Your task to perform on an android device: Search for "alienware aurora" on ebay, select the first entry, and add it to the cart. Image 0: 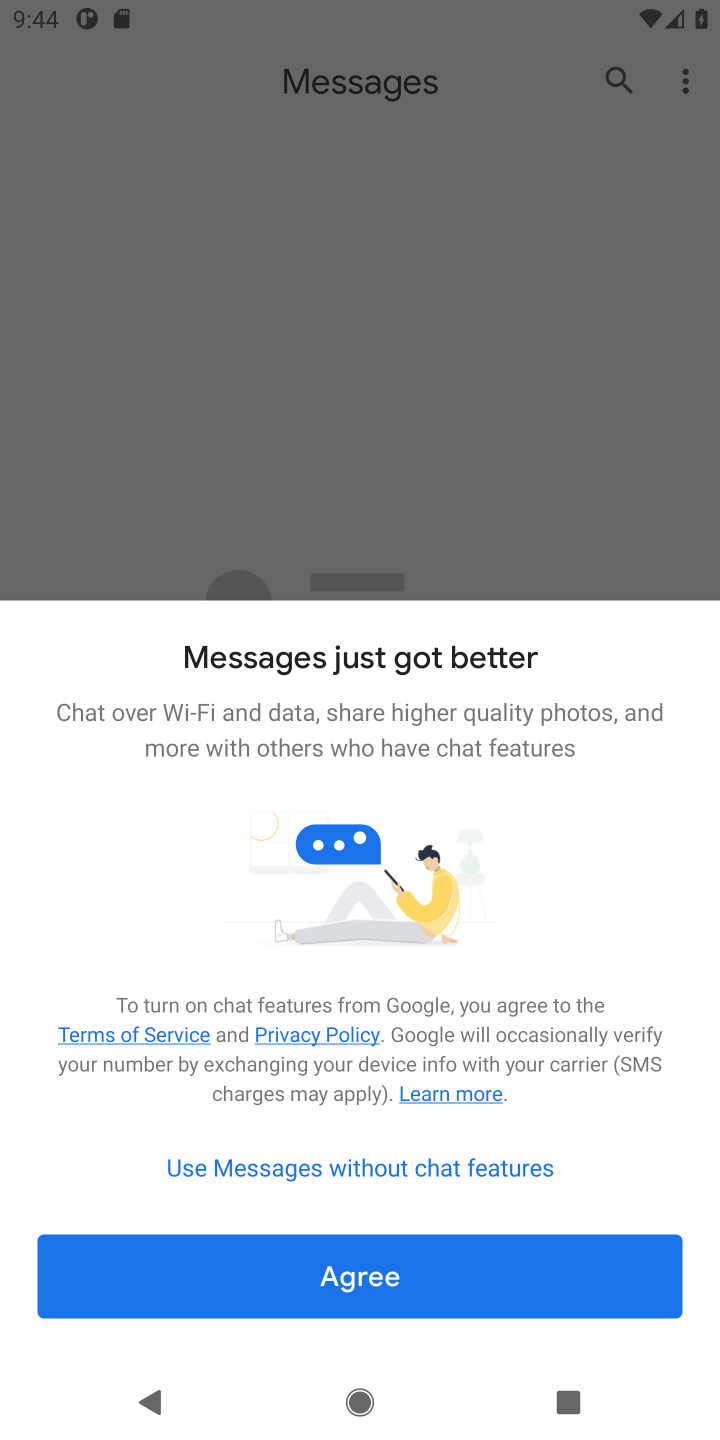
Step 0: press home button
Your task to perform on an android device: Search for "alienware aurora" on ebay, select the first entry, and add it to the cart. Image 1: 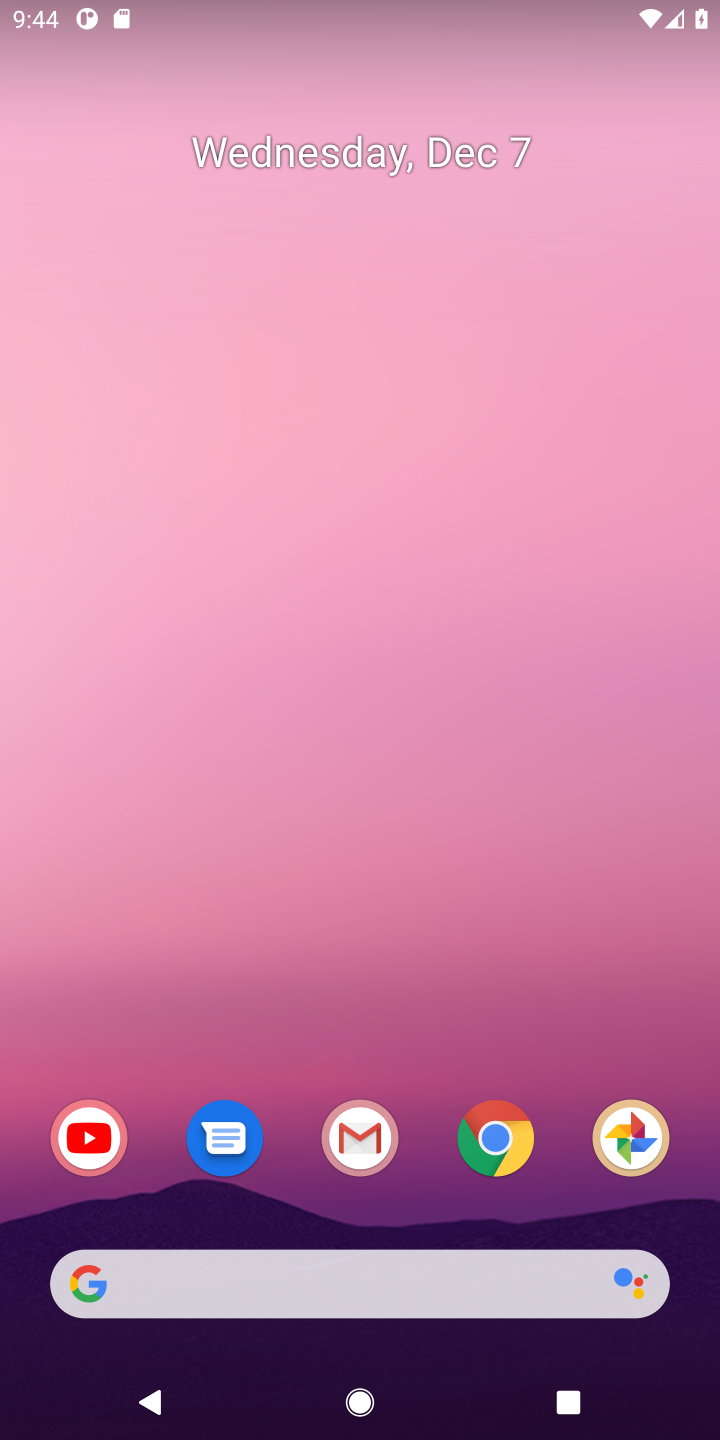
Step 1: click (153, 1281)
Your task to perform on an android device: Search for "alienware aurora" on ebay, select the first entry, and add it to the cart. Image 2: 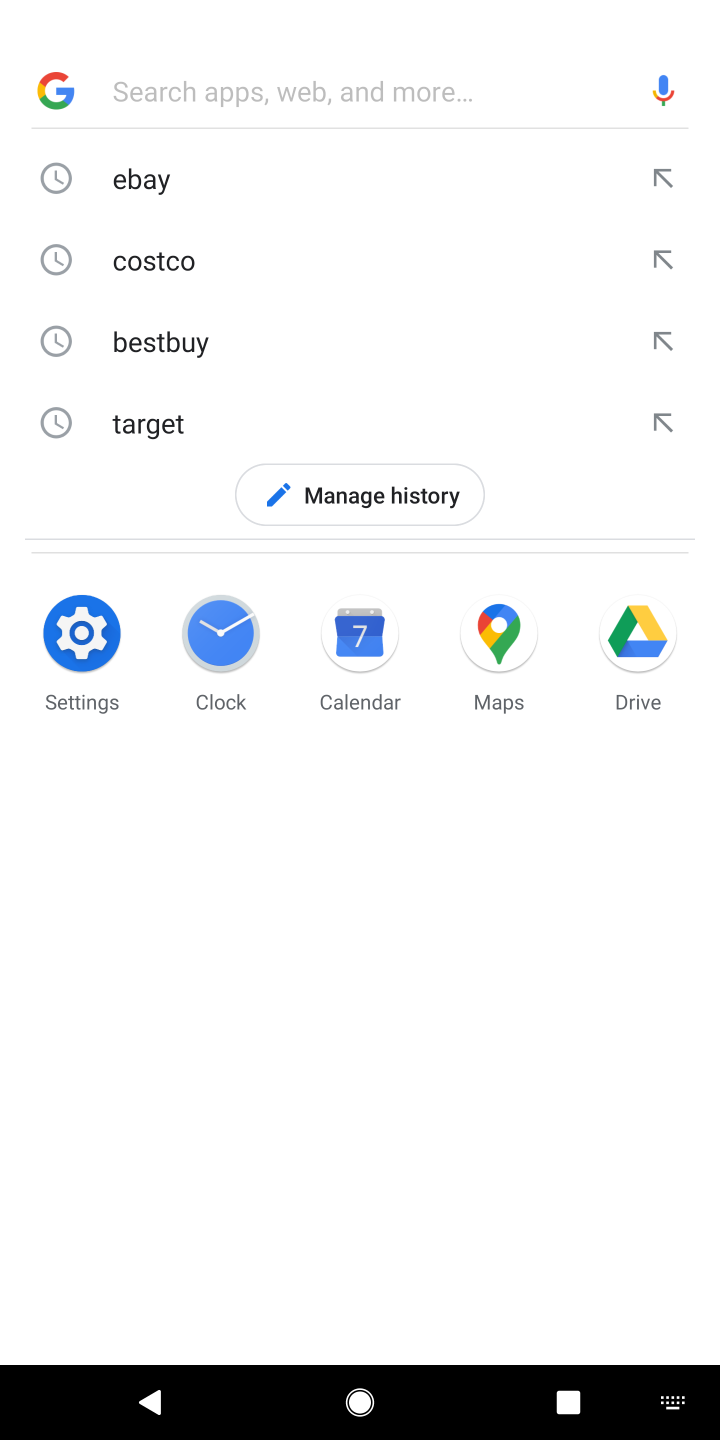
Step 2: type "ebay"
Your task to perform on an android device: Search for "alienware aurora" on ebay, select the first entry, and add it to the cart. Image 3: 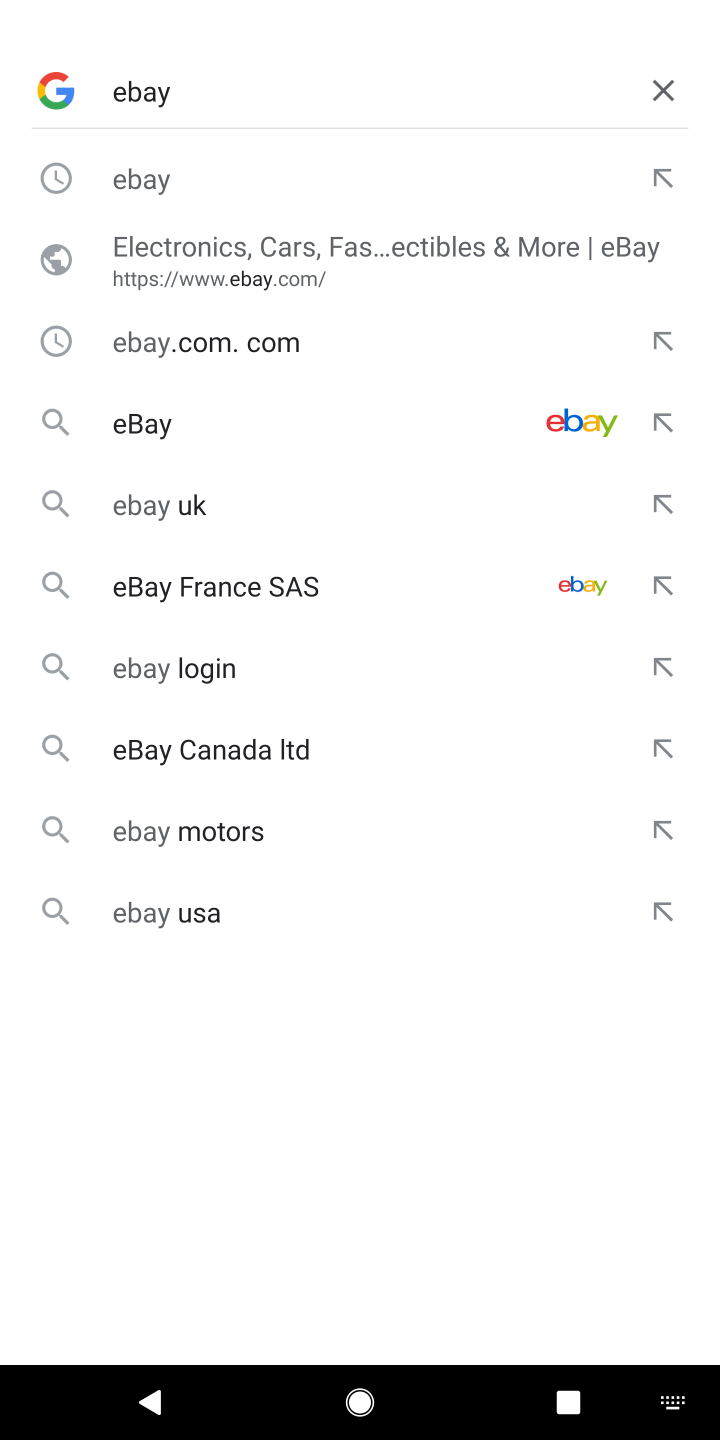
Step 3: press enter
Your task to perform on an android device: Search for "alienware aurora" on ebay, select the first entry, and add it to the cart. Image 4: 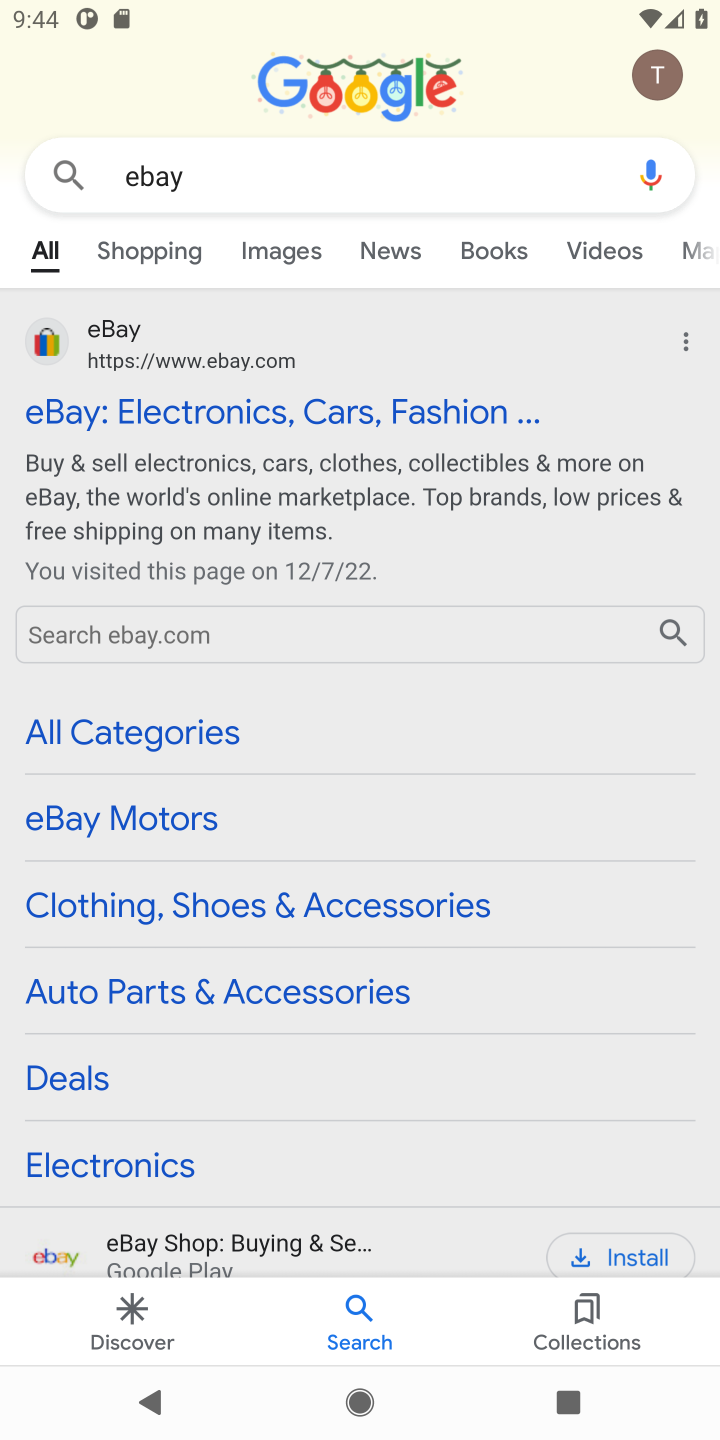
Step 4: click (227, 414)
Your task to perform on an android device: Search for "alienware aurora" on ebay, select the first entry, and add it to the cart. Image 5: 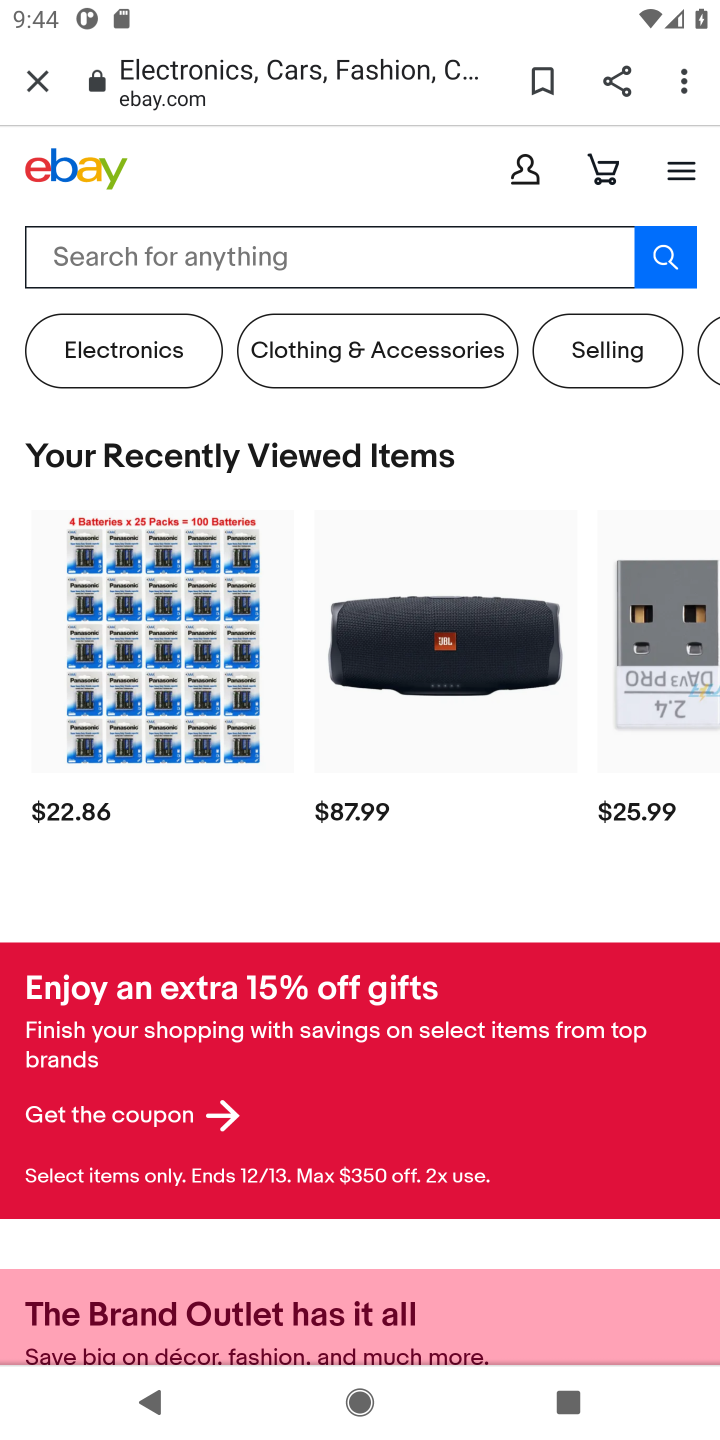
Step 5: click (91, 247)
Your task to perform on an android device: Search for "alienware aurora" on ebay, select the first entry, and add it to the cart. Image 6: 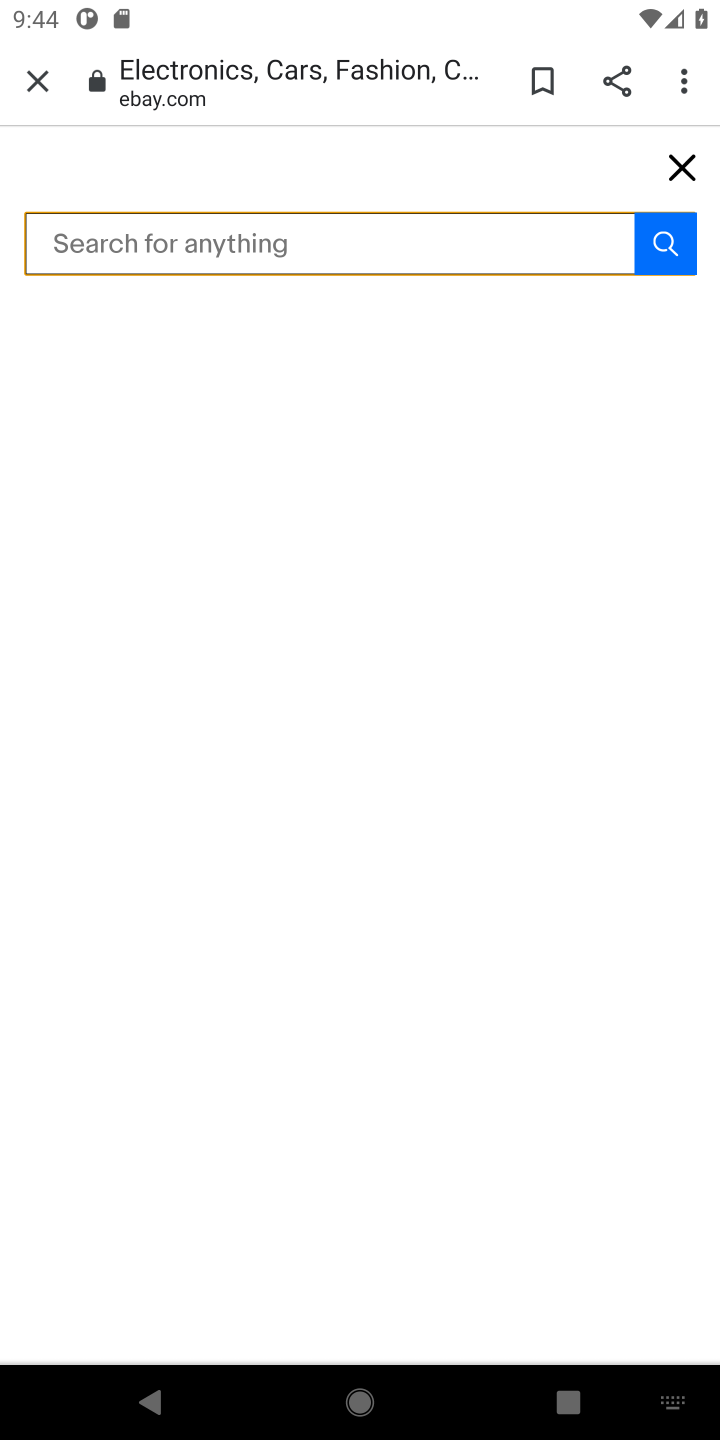
Step 6: type "alienware aurora"
Your task to perform on an android device: Search for "alienware aurora" on ebay, select the first entry, and add it to the cart. Image 7: 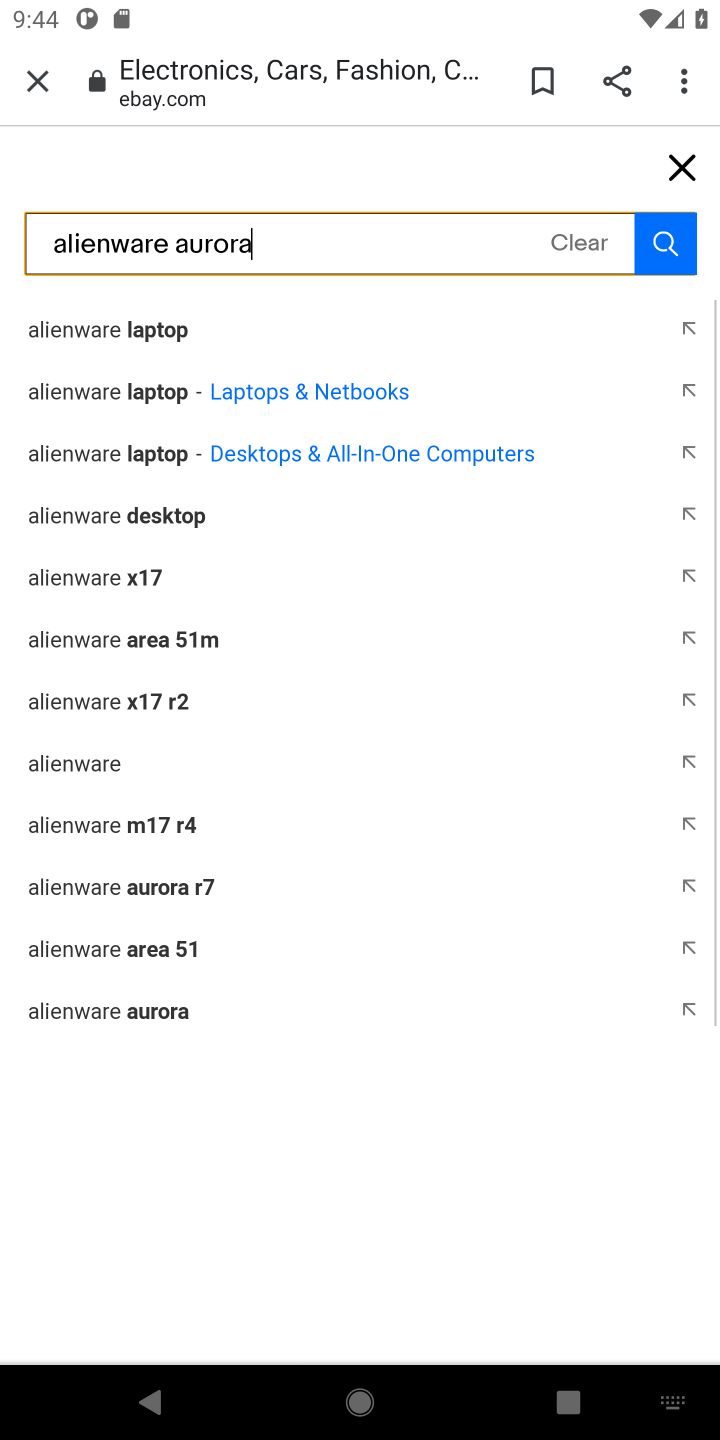
Step 7: press enter
Your task to perform on an android device: Search for "alienware aurora" on ebay, select the first entry, and add it to the cart. Image 8: 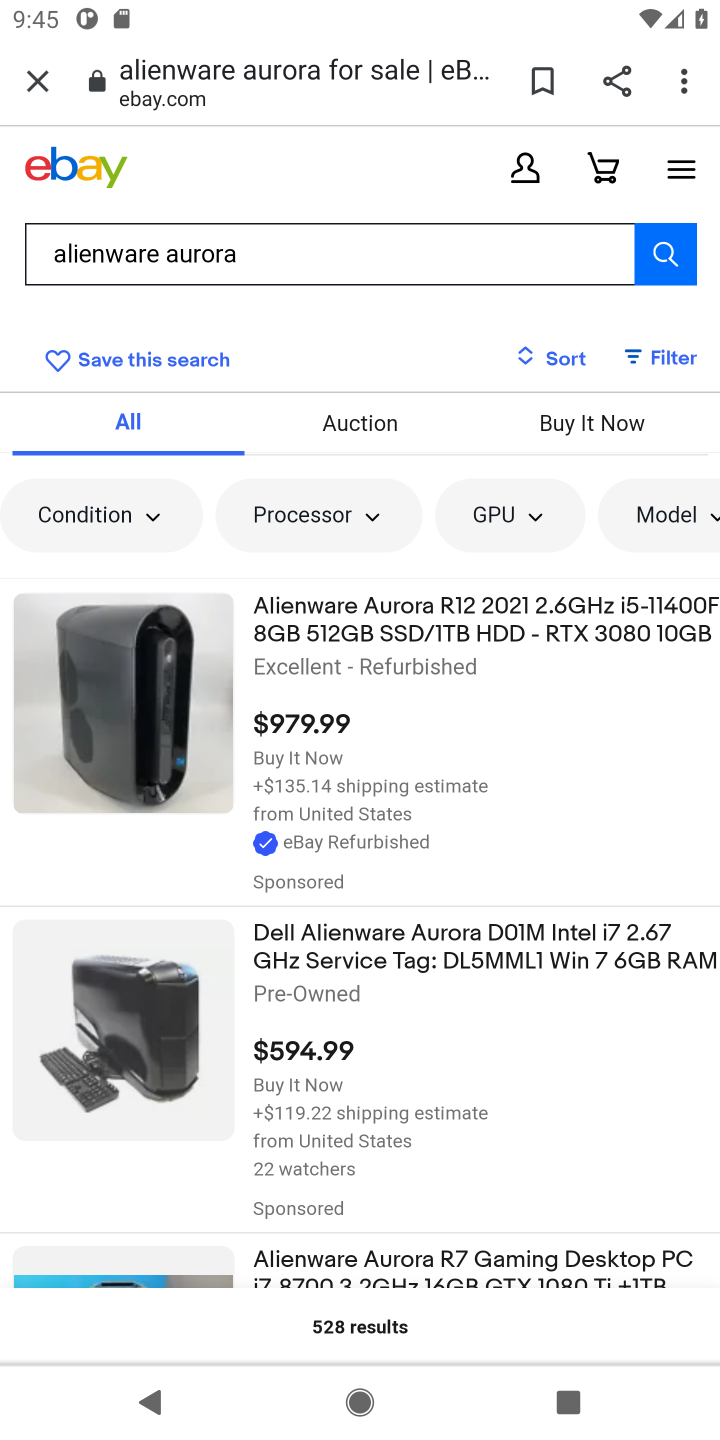
Step 8: click (410, 615)
Your task to perform on an android device: Search for "alienware aurora" on ebay, select the first entry, and add it to the cart. Image 9: 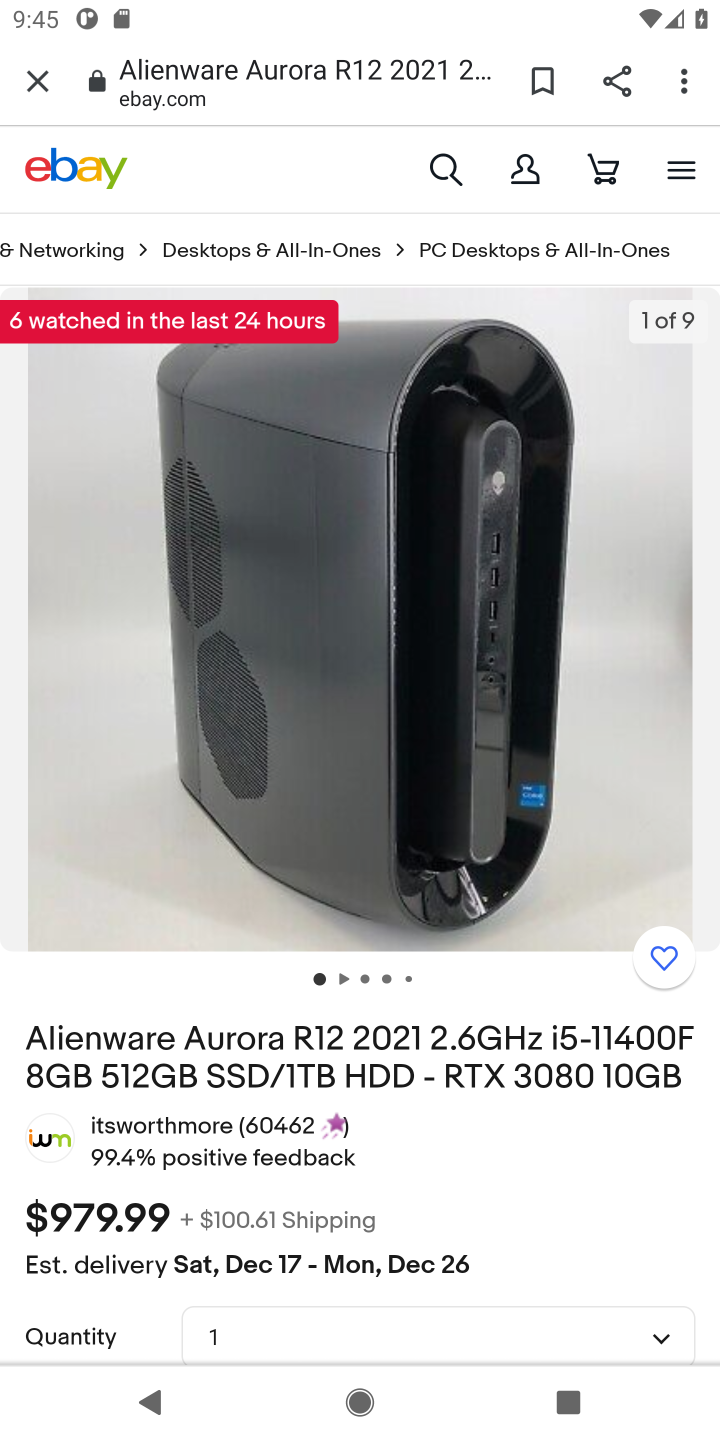
Step 9: drag from (510, 1068) to (510, 581)
Your task to perform on an android device: Search for "alienware aurora" on ebay, select the first entry, and add it to the cart. Image 10: 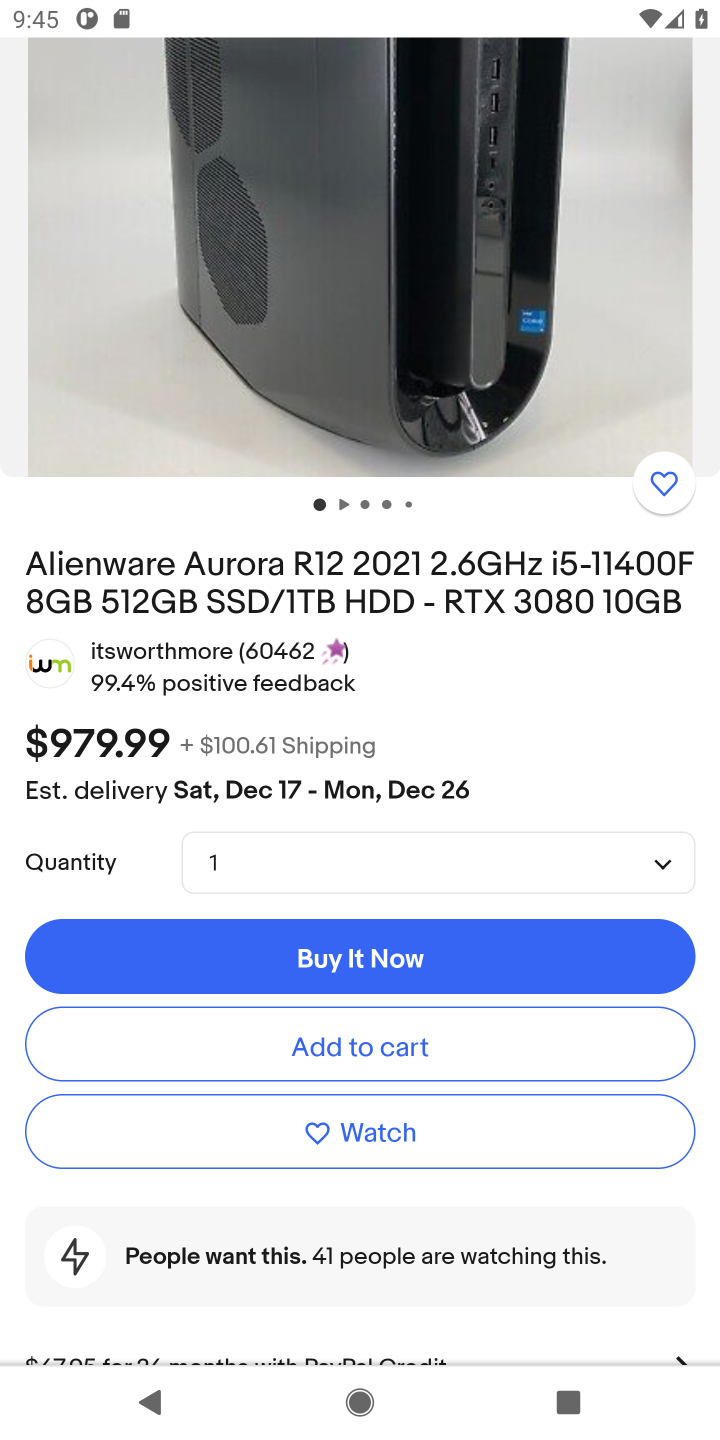
Step 10: drag from (476, 1043) to (510, 393)
Your task to perform on an android device: Search for "alienware aurora" on ebay, select the first entry, and add it to the cart. Image 11: 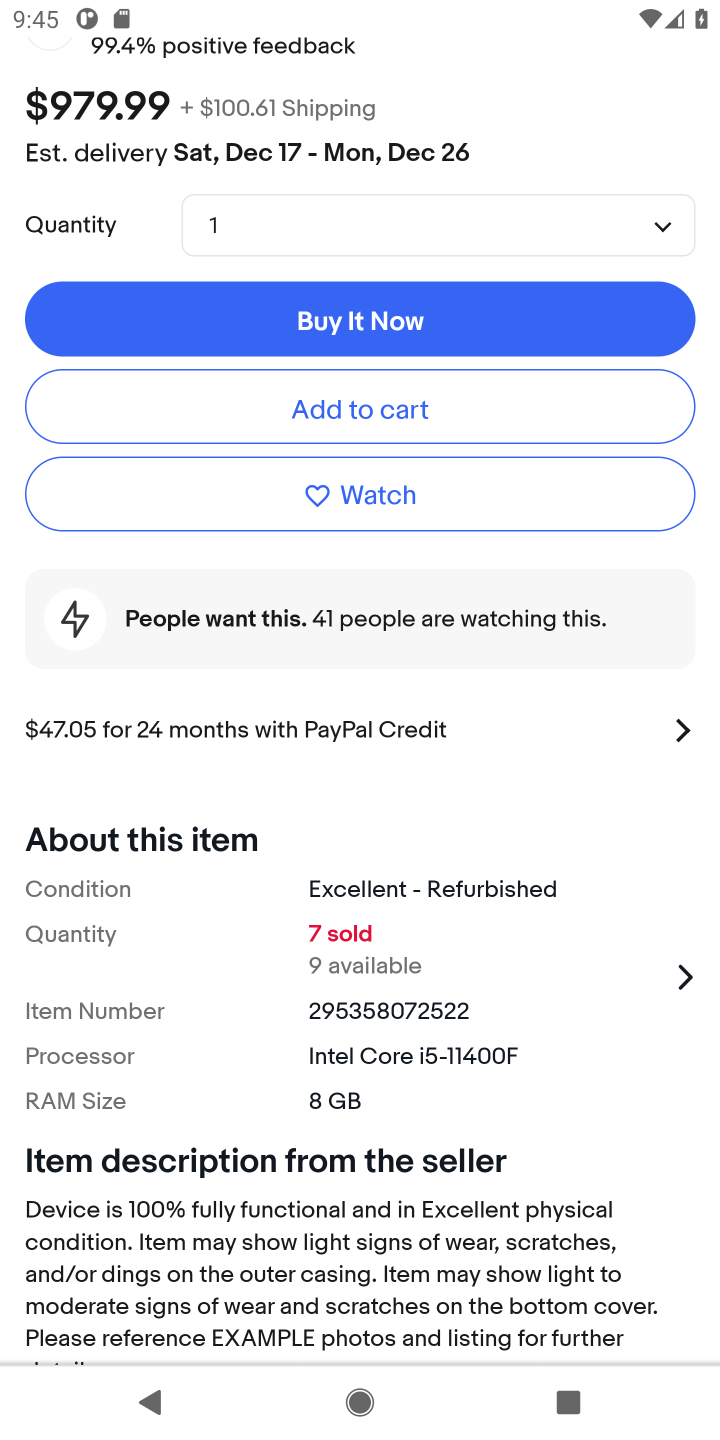
Step 11: click (360, 400)
Your task to perform on an android device: Search for "alienware aurora" on ebay, select the first entry, and add it to the cart. Image 12: 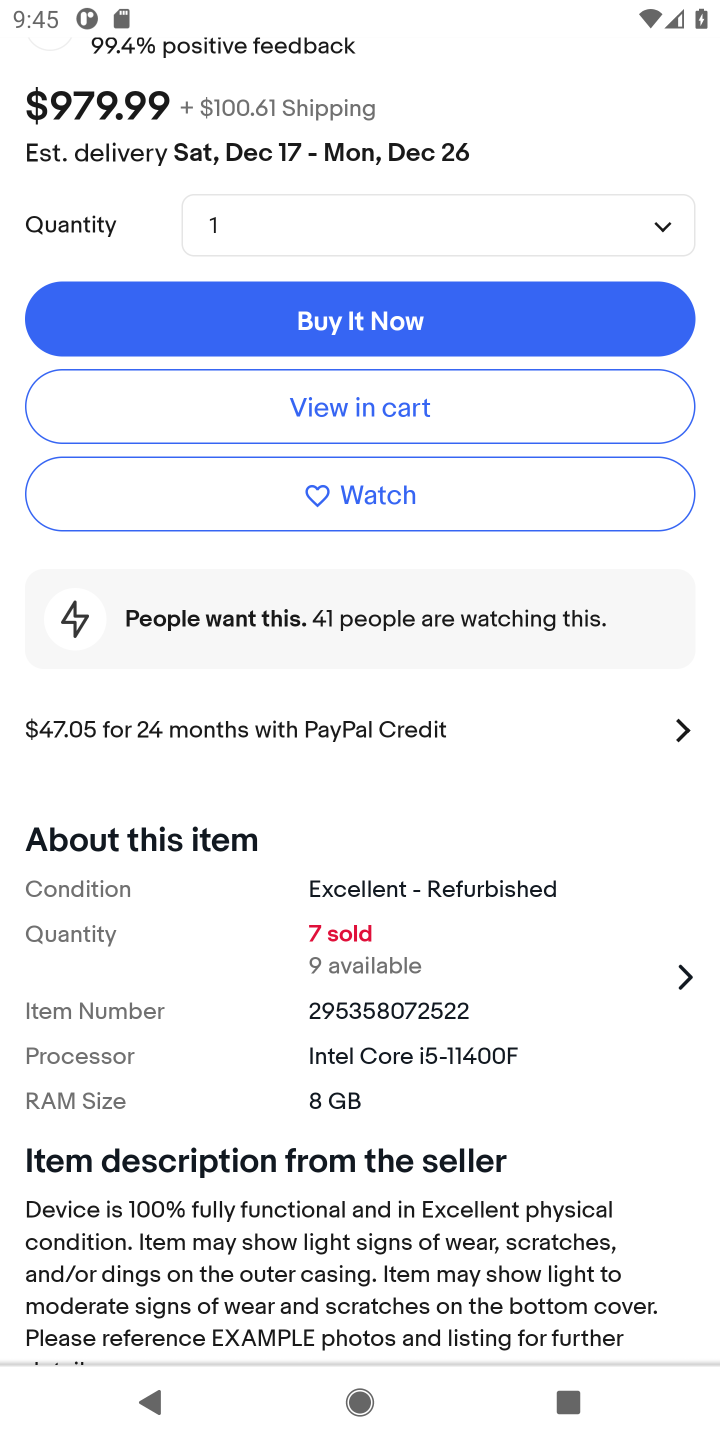
Step 12: task complete